Your task to perform on an android device: Go to Wikipedia Image 0: 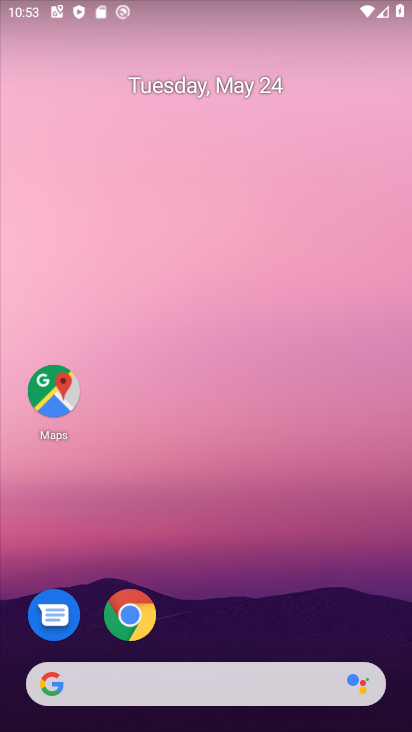
Step 0: drag from (189, 625) to (179, 470)
Your task to perform on an android device: Go to Wikipedia Image 1: 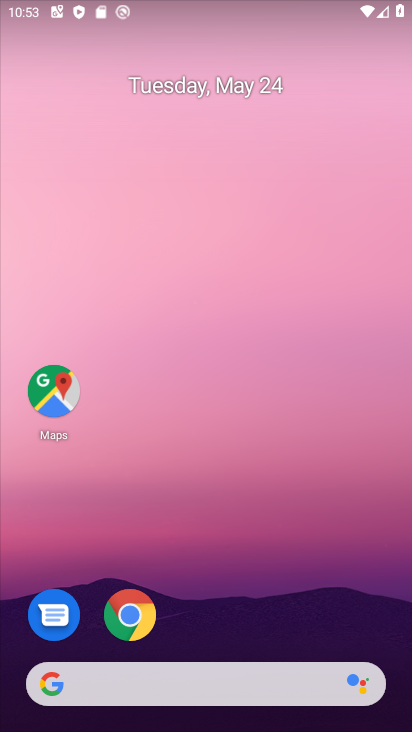
Step 1: drag from (173, 615) to (104, 286)
Your task to perform on an android device: Go to Wikipedia Image 2: 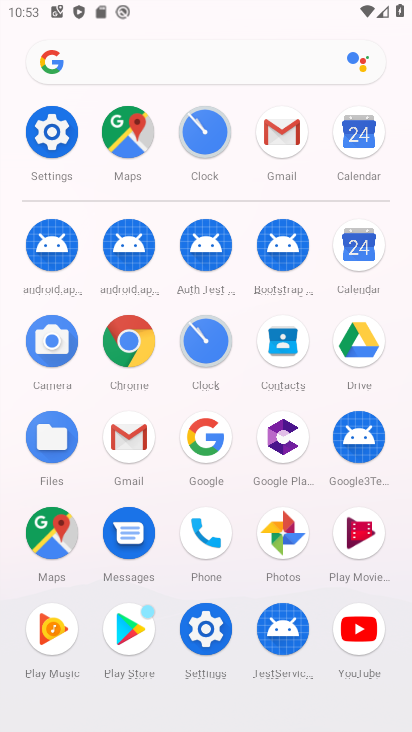
Step 2: click (45, 117)
Your task to perform on an android device: Go to Wikipedia Image 3: 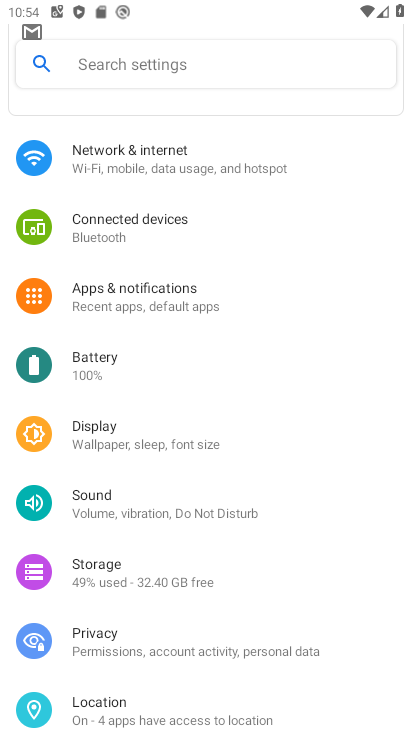
Step 3: click (115, 572)
Your task to perform on an android device: Go to Wikipedia Image 4: 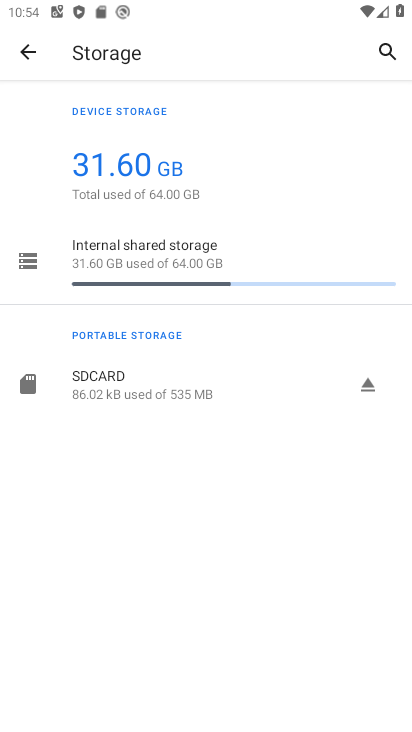
Step 4: task complete